Your task to perform on an android device: Go to privacy settings Image 0: 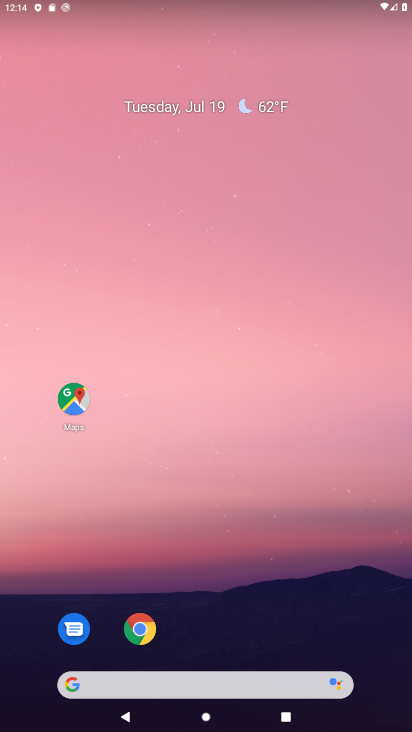
Step 0: drag from (233, 661) to (233, 31)
Your task to perform on an android device: Go to privacy settings Image 1: 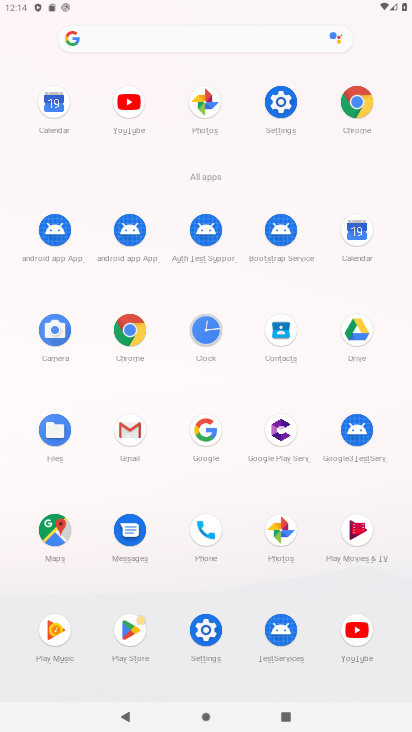
Step 1: click (208, 627)
Your task to perform on an android device: Go to privacy settings Image 2: 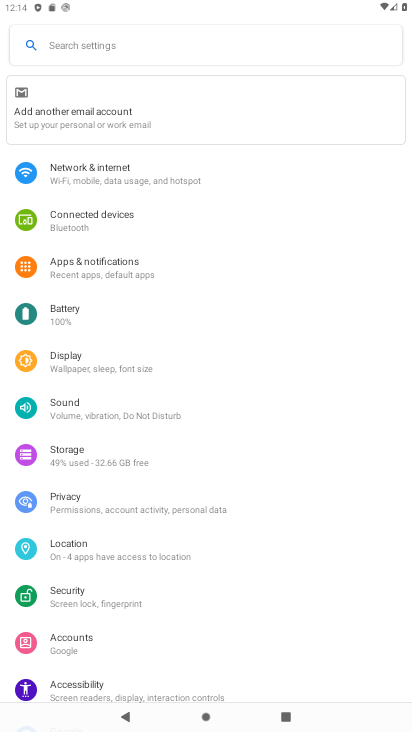
Step 2: click (50, 507)
Your task to perform on an android device: Go to privacy settings Image 3: 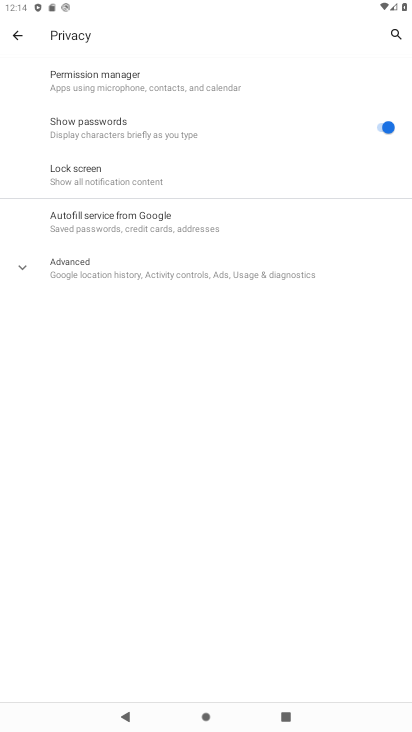
Step 3: click (67, 263)
Your task to perform on an android device: Go to privacy settings Image 4: 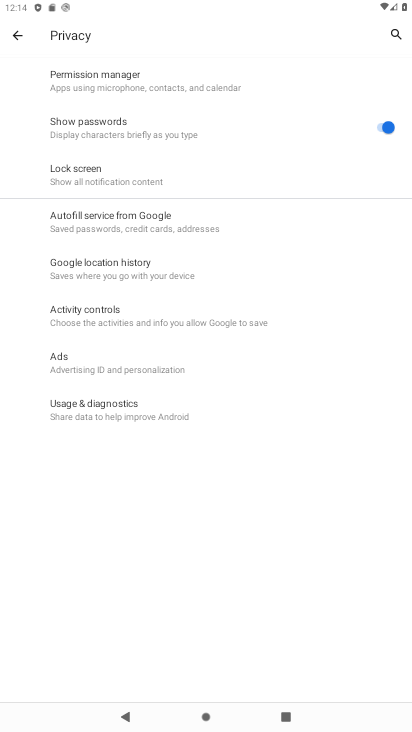
Step 4: task complete